Your task to perform on an android device: Clear the cart on amazon.com. Add dell xps to the cart on amazon.com Image 0: 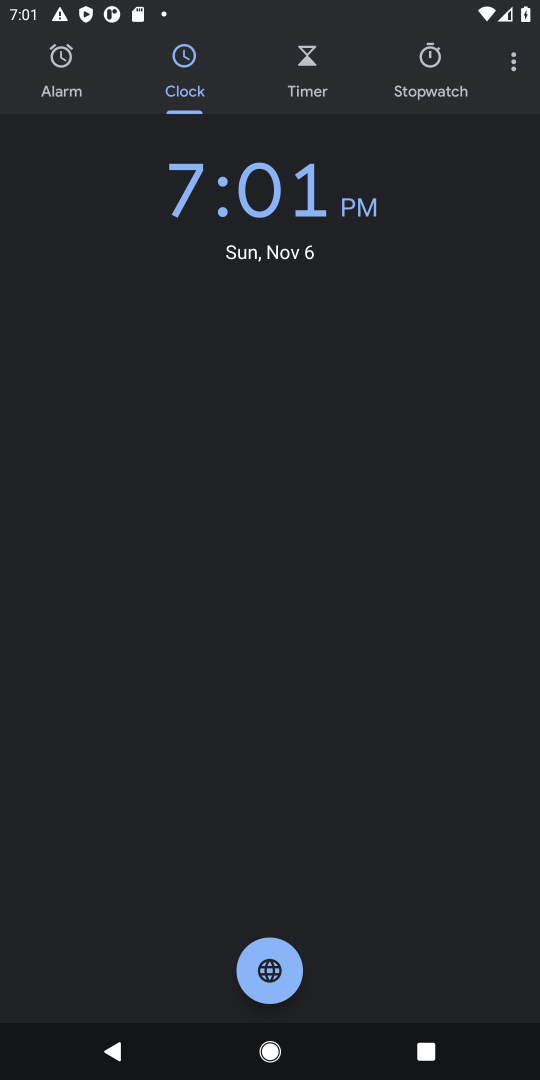
Step 0: press home button
Your task to perform on an android device: Clear the cart on amazon.com. Add dell xps to the cart on amazon.com Image 1: 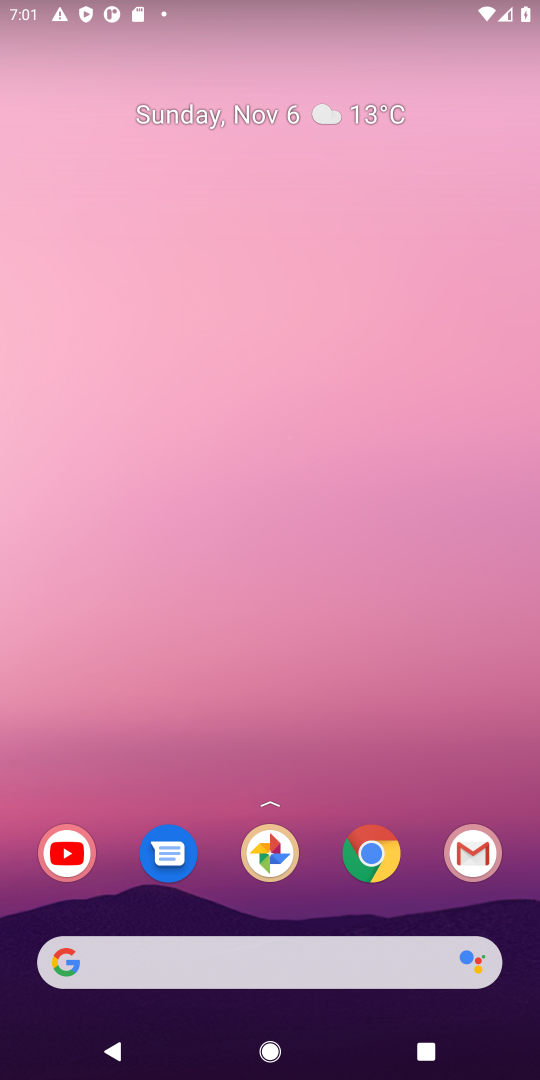
Step 1: click (366, 855)
Your task to perform on an android device: Clear the cart on amazon.com. Add dell xps to the cart on amazon.com Image 2: 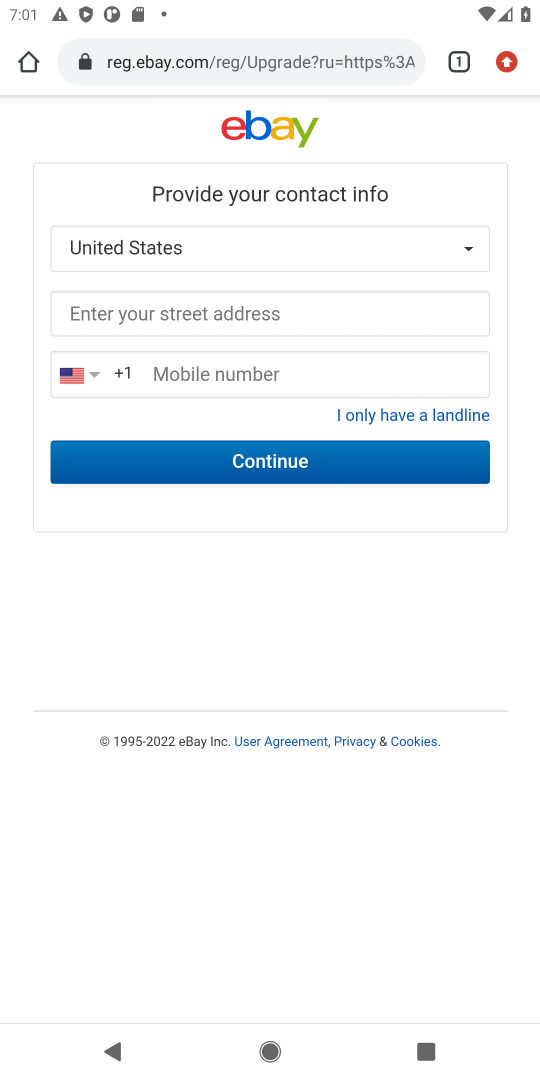
Step 2: click (232, 40)
Your task to perform on an android device: Clear the cart on amazon.com. Add dell xps to the cart on amazon.com Image 3: 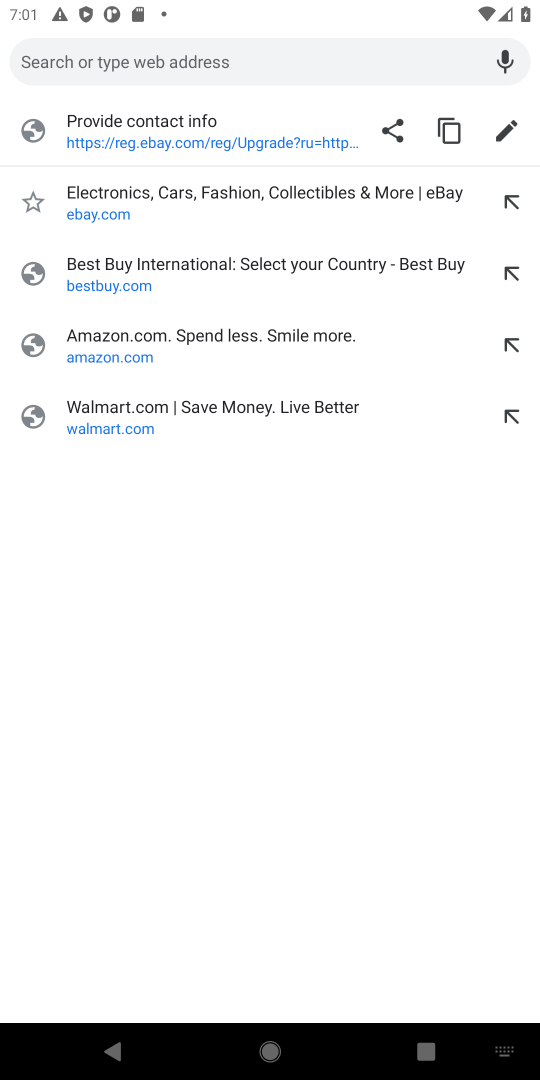
Step 3: type "amazon.com"
Your task to perform on an android device: Clear the cart on amazon.com. Add dell xps to the cart on amazon.com Image 4: 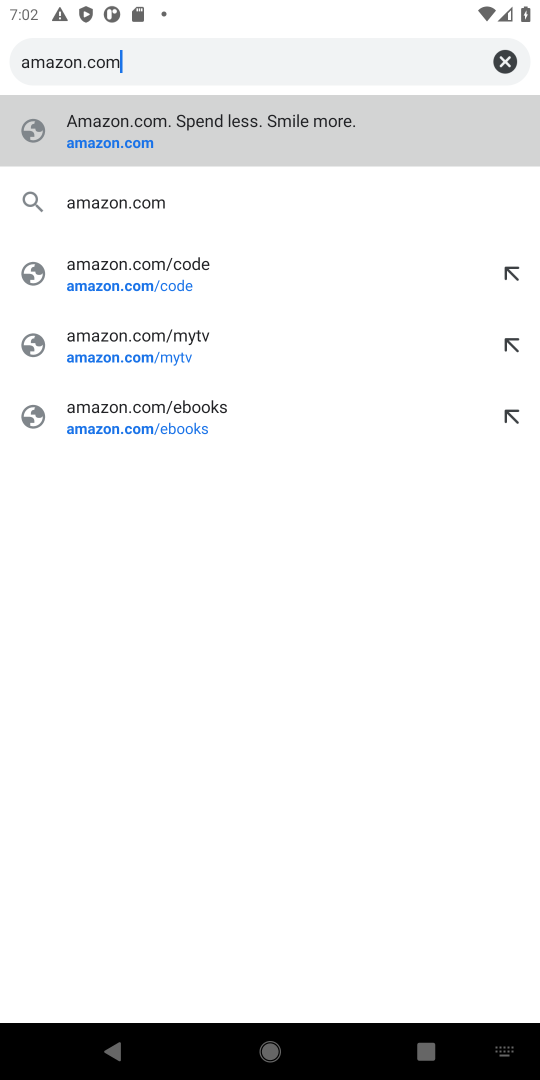
Step 4: click (109, 133)
Your task to perform on an android device: Clear the cart on amazon.com. Add dell xps to the cart on amazon.com Image 5: 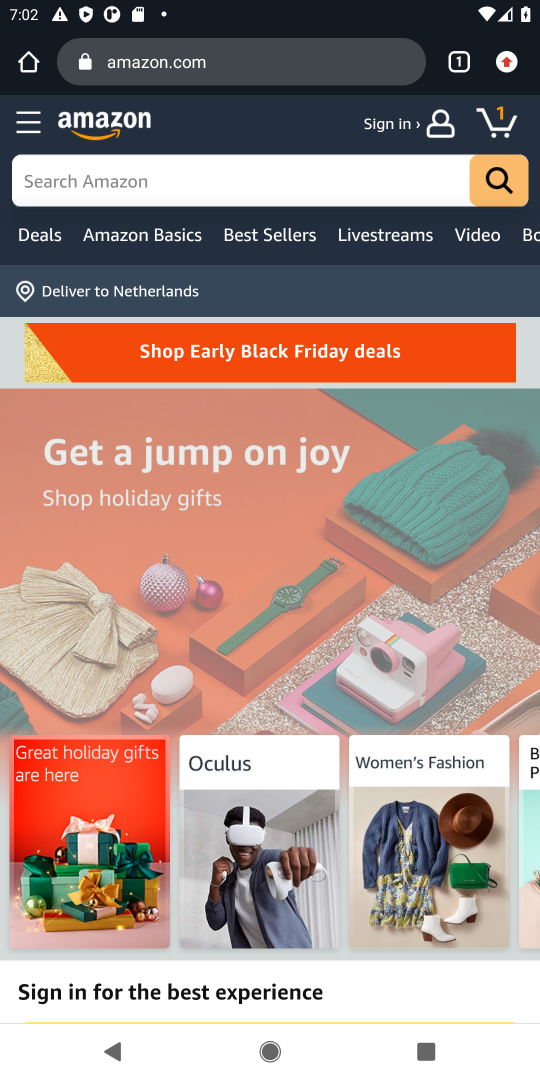
Step 5: click (493, 118)
Your task to perform on an android device: Clear the cart on amazon.com. Add dell xps to the cart on amazon.com Image 6: 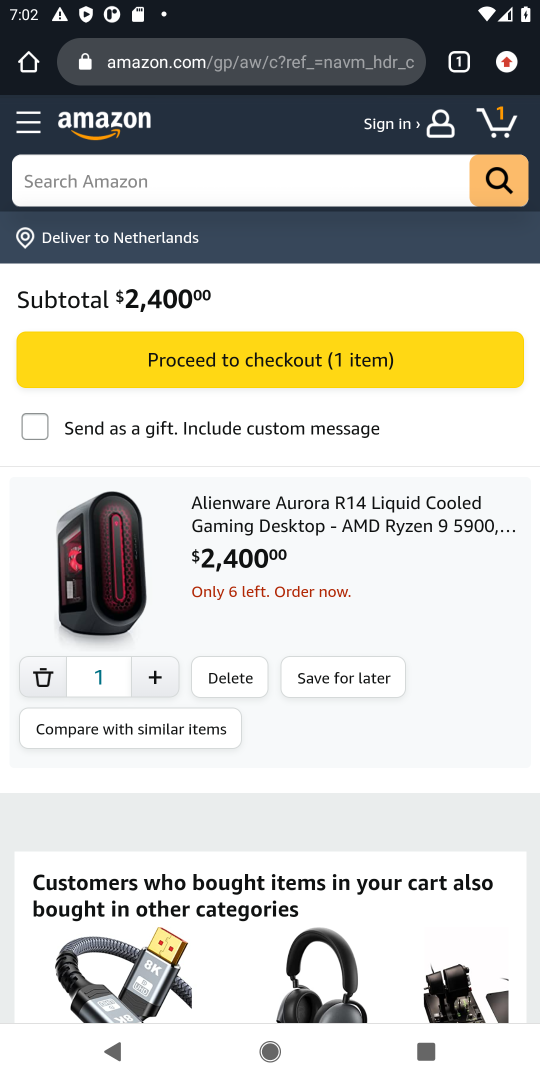
Step 6: click (44, 679)
Your task to perform on an android device: Clear the cart on amazon.com. Add dell xps to the cart on amazon.com Image 7: 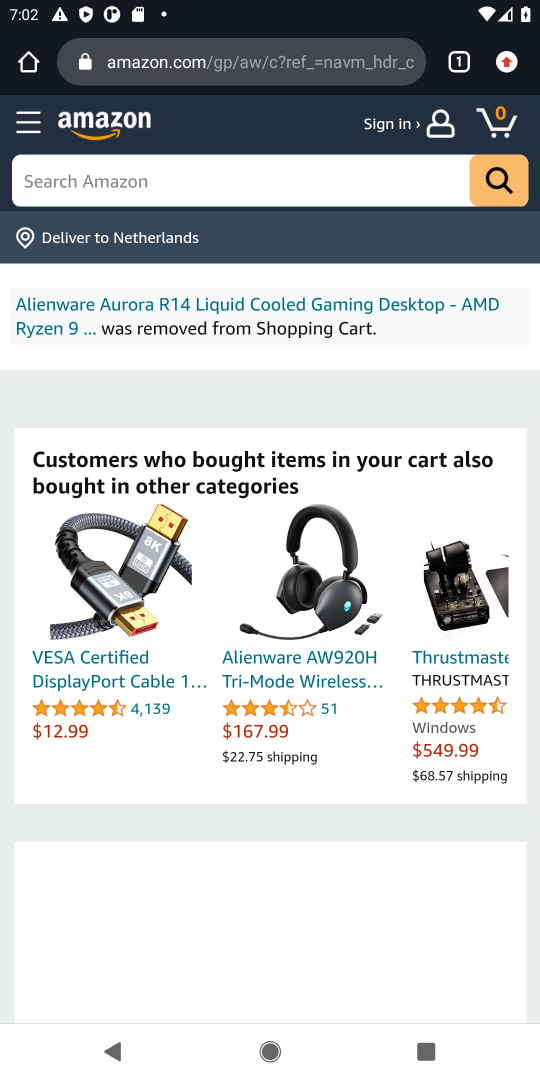
Step 7: click (155, 176)
Your task to perform on an android device: Clear the cart on amazon.com. Add dell xps to the cart on amazon.com Image 8: 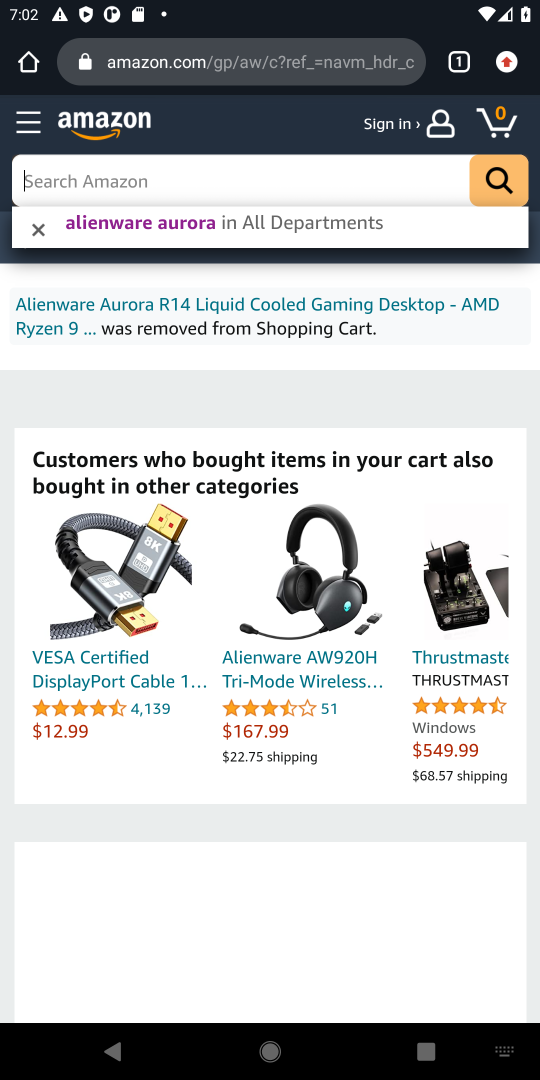
Step 8: type "dell xps"
Your task to perform on an android device: Clear the cart on amazon.com. Add dell xps to the cart on amazon.com Image 9: 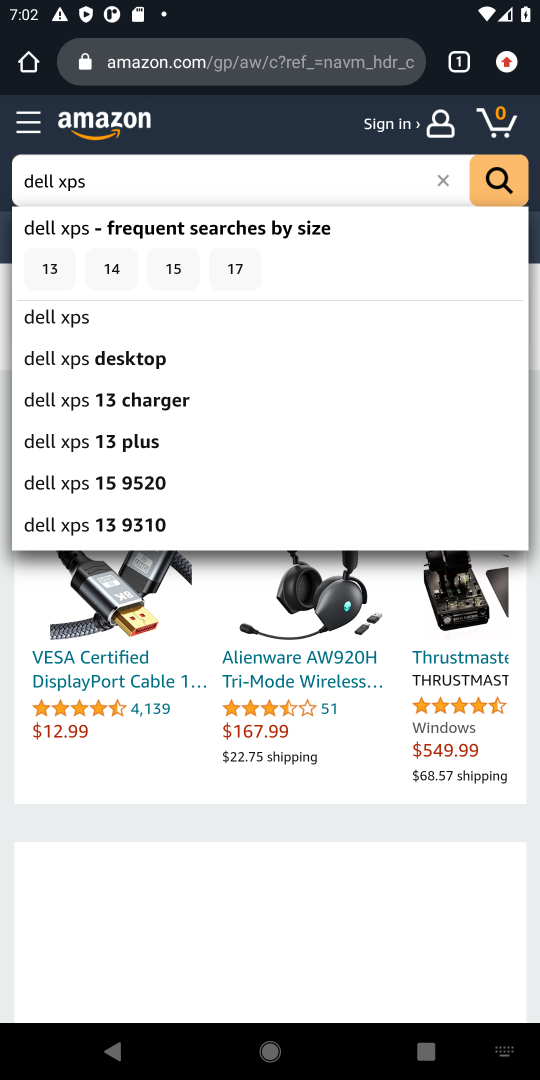
Step 9: click (495, 181)
Your task to perform on an android device: Clear the cart on amazon.com. Add dell xps to the cart on amazon.com Image 10: 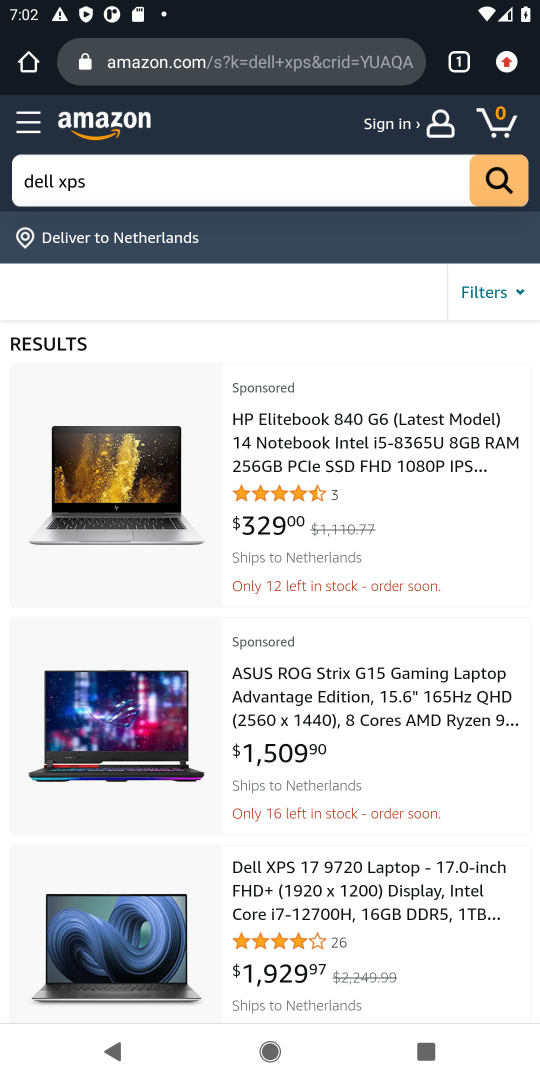
Step 10: click (271, 889)
Your task to perform on an android device: Clear the cart on amazon.com. Add dell xps to the cart on amazon.com Image 11: 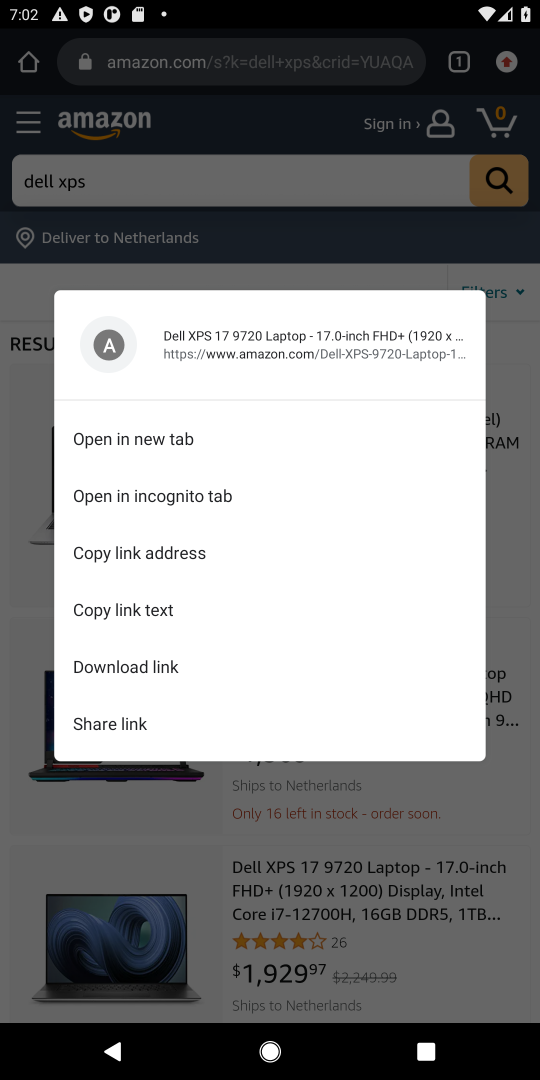
Step 11: click (271, 889)
Your task to perform on an android device: Clear the cart on amazon.com. Add dell xps to the cart on amazon.com Image 12: 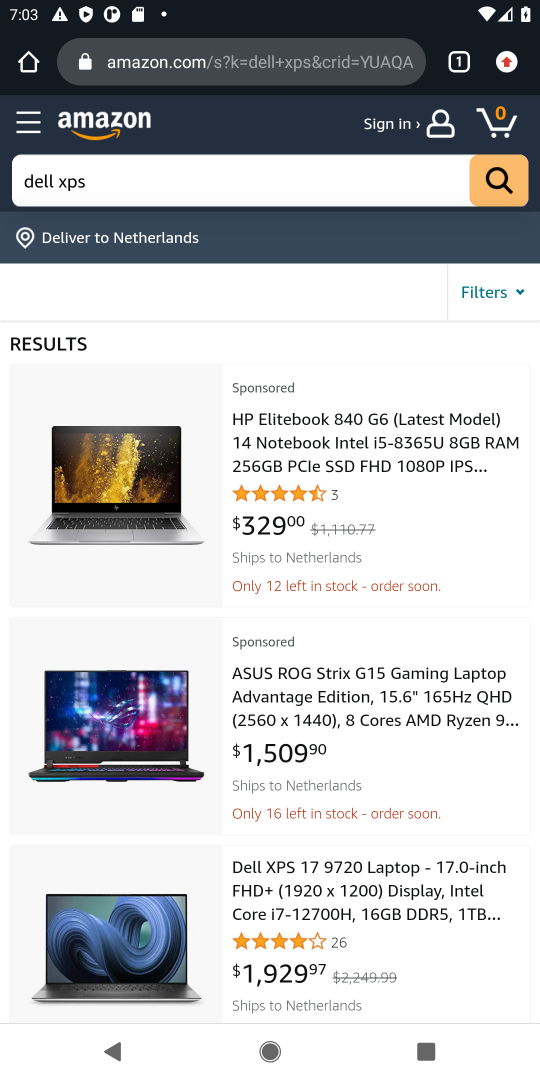
Step 12: click (274, 882)
Your task to perform on an android device: Clear the cart on amazon.com. Add dell xps to the cart on amazon.com Image 13: 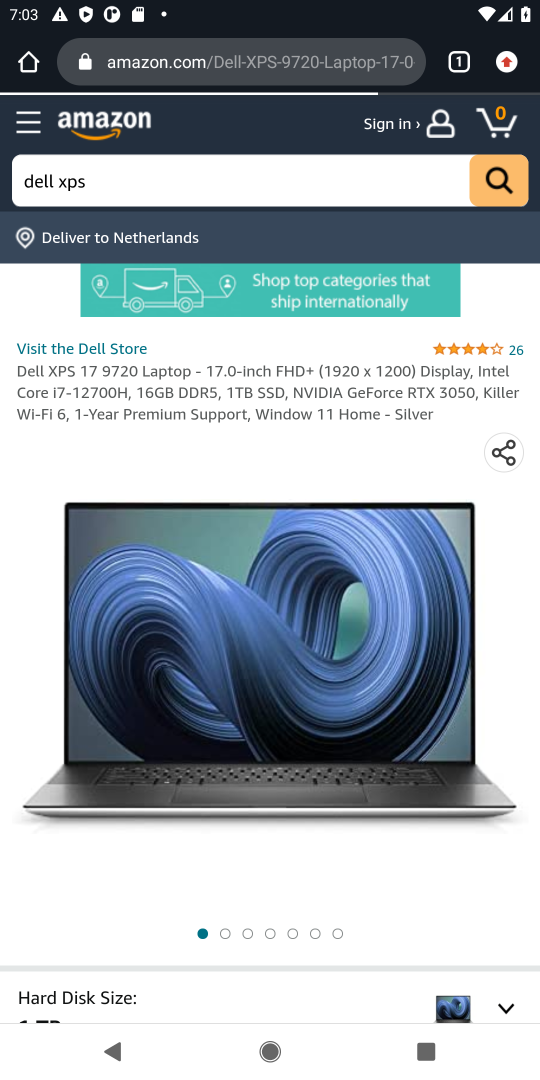
Step 13: drag from (363, 863) to (327, 290)
Your task to perform on an android device: Clear the cart on amazon.com. Add dell xps to the cart on amazon.com Image 14: 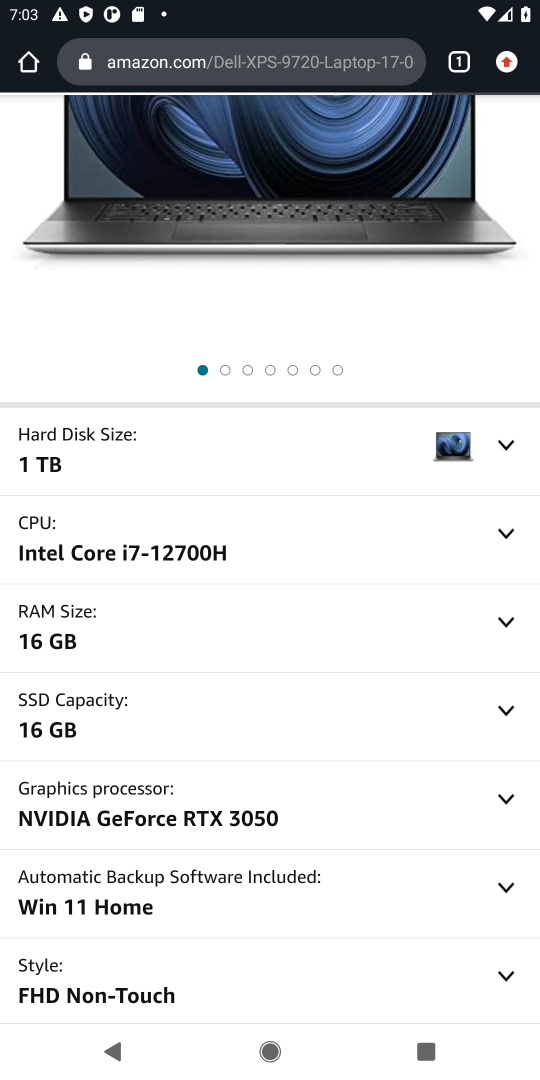
Step 14: drag from (321, 793) to (348, 334)
Your task to perform on an android device: Clear the cart on amazon.com. Add dell xps to the cart on amazon.com Image 15: 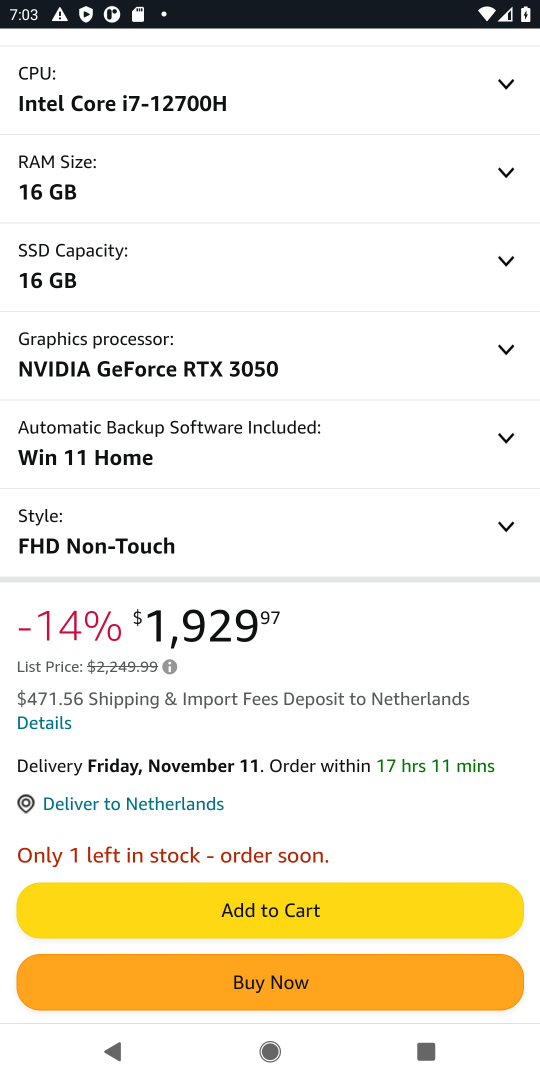
Step 15: drag from (324, 815) to (368, 374)
Your task to perform on an android device: Clear the cart on amazon.com. Add dell xps to the cart on amazon.com Image 16: 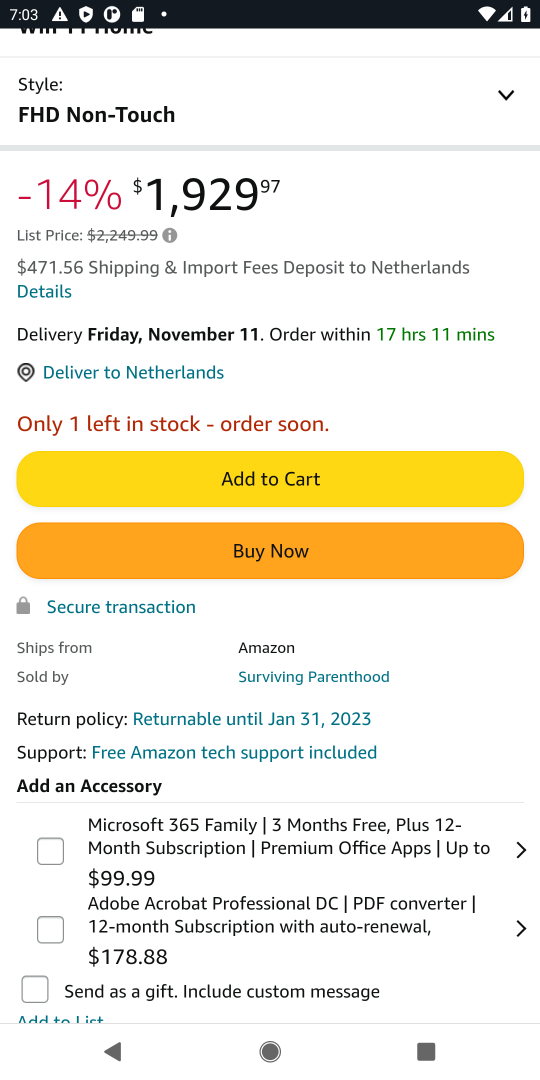
Step 16: click (250, 479)
Your task to perform on an android device: Clear the cart on amazon.com. Add dell xps to the cart on amazon.com Image 17: 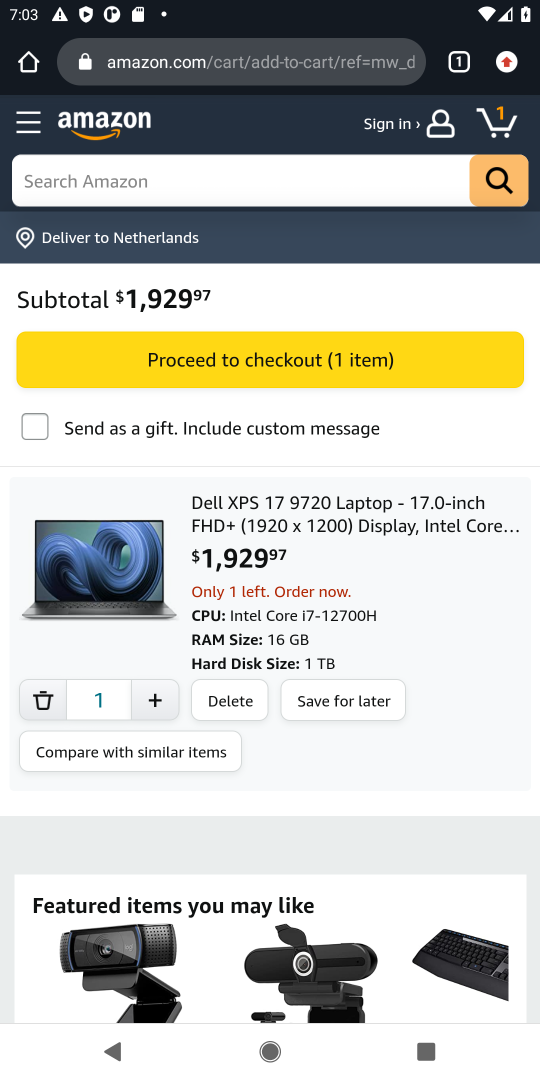
Step 17: task complete